Your task to perform on an android device: Turn off the flashlight Image 0: 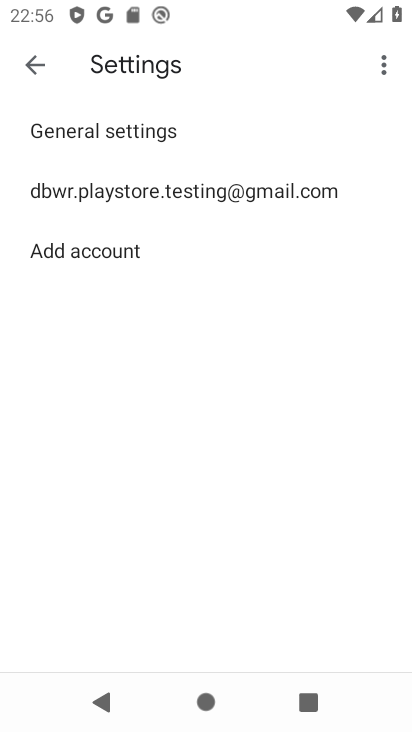
Step 0: press home button
Your task to perform on an android device: Turn off the flashlight Image 1: 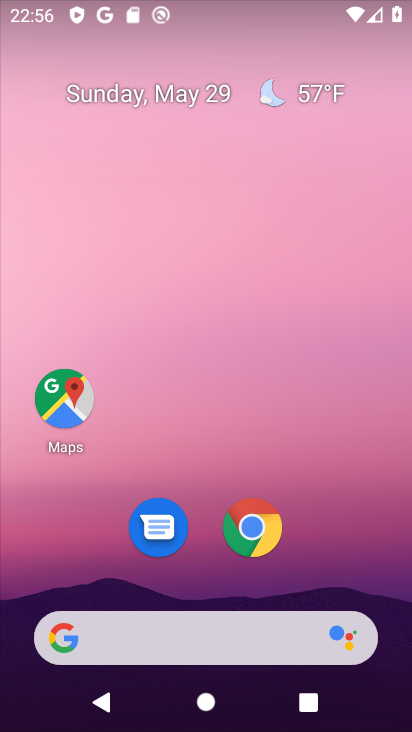
Step 1: drag from (331, 578) to (228, 137)
Your task to perform on an android device: Turn off the flashlight Image 2: 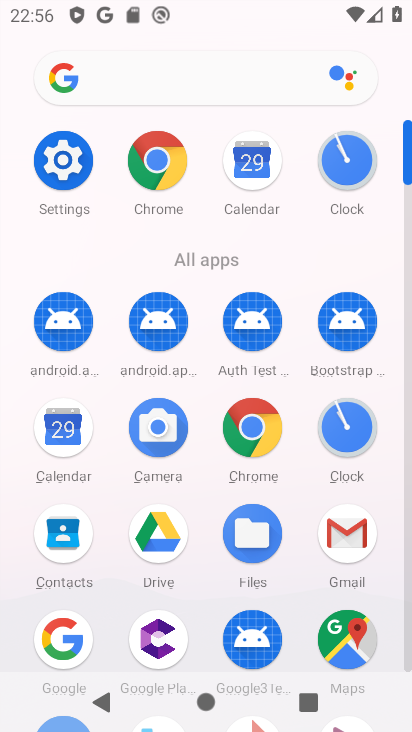
Step 2: click (62, 161)
Your task to perform on an android device: Turn off the flashlight Image 3: 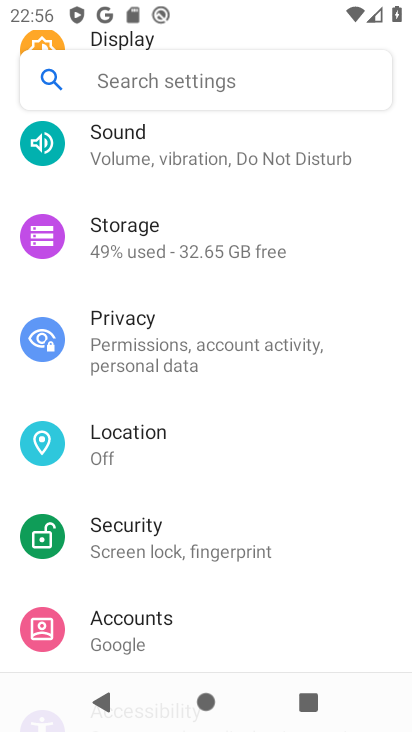
Step 3: drag from (199, 476) to (239, 390)
Your task to perform on an android device: Turn off the flashlight Image 4: 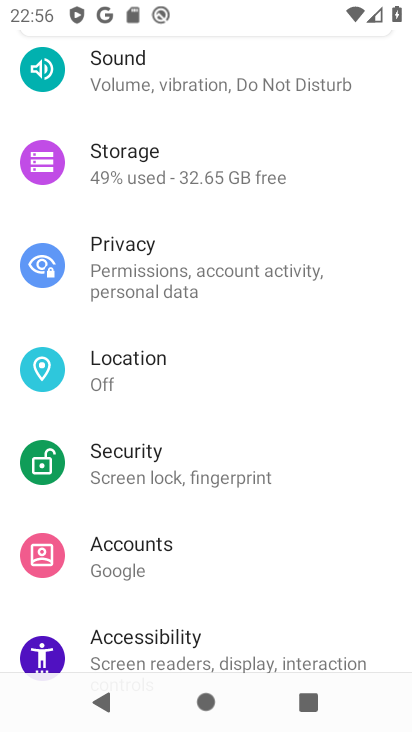
Step 4: drag from (179, 526) to (207, 431)
Your task to perform on an android device: Turn off the flashlight Image 5: 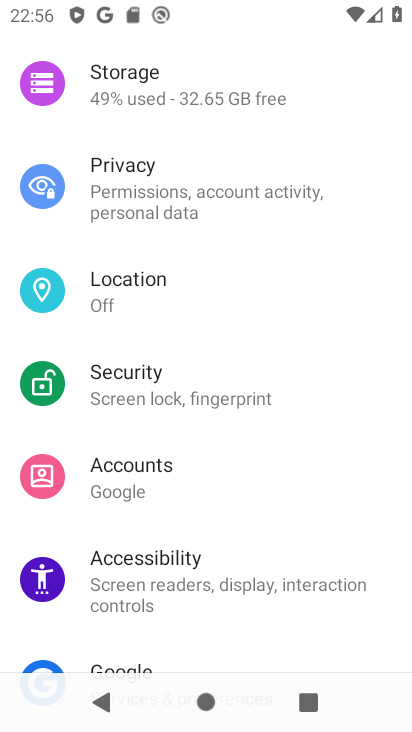
Step 5: drag from (213, 516) to (229, 405)
Your task to perform on an android device: Turn off the flashlight Image 6: 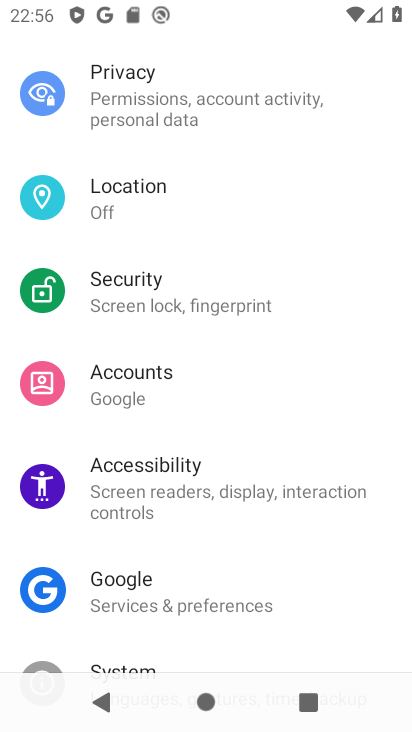
Step 6: drag from (219, 554) to (288, 429)
Your task to perform on an android device: Turn off the flashlight Image 7: 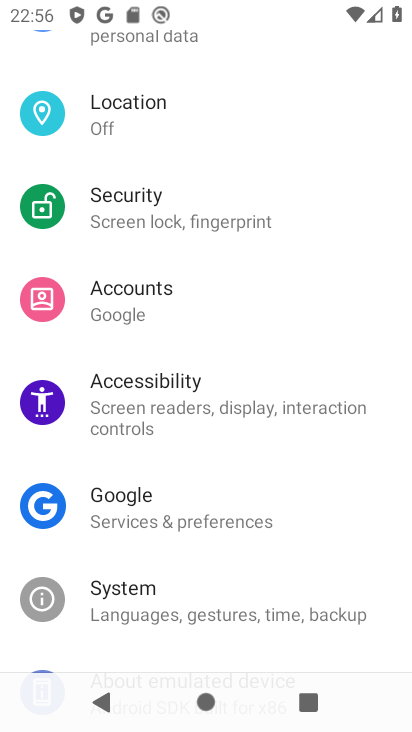
Step 7: drag from (265, 613) to (308, 498)
Your task to perform on an android device: Turn off the flashlight Image 8: 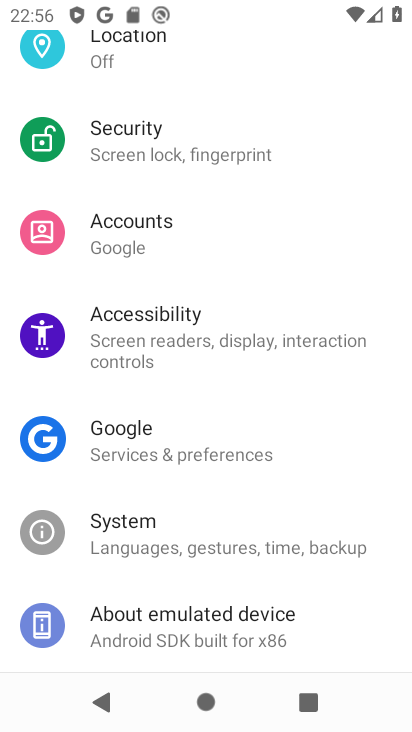
Step 8: click (308, 495)
Your task to perform on an android device: Turn off the flashlight Image 9: 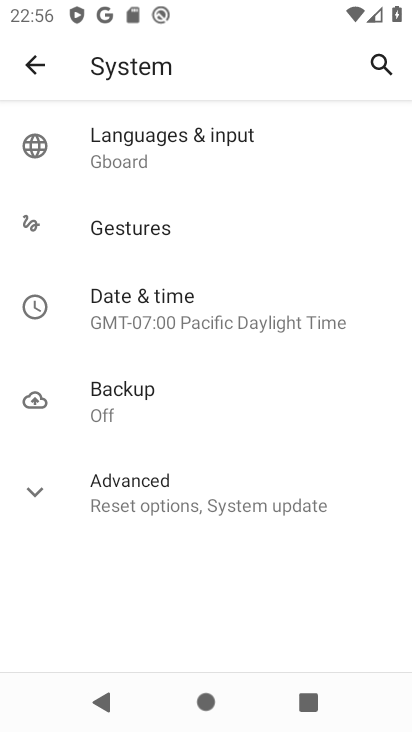
Step 9: click (208, 517)
Your task to perform on an android device: Turn off the flashlight Image 10: 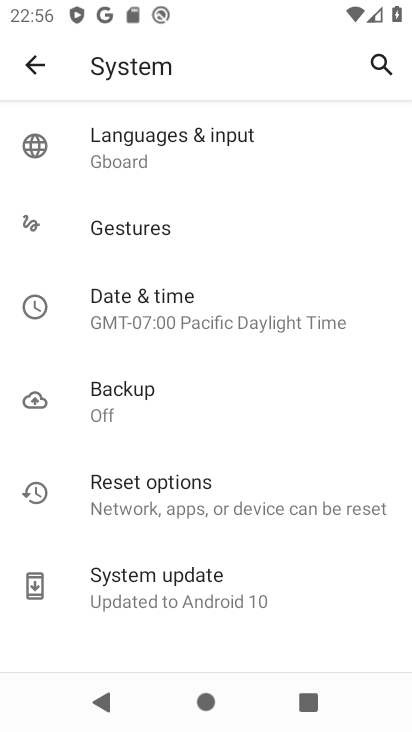
Step 10: drag from (215, 564) to (217, 480)
Your task to perform on an android device: Turn off the flashlight Image 11: 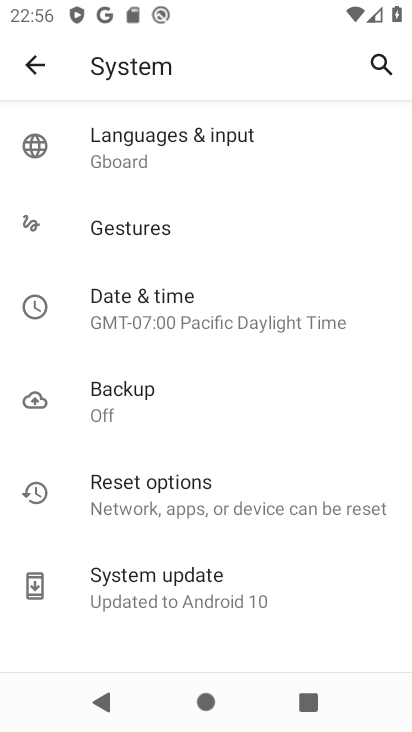
Step 11: click (34, 72)
Your task to perform on an android device: Turn off the flashlight Image 12: 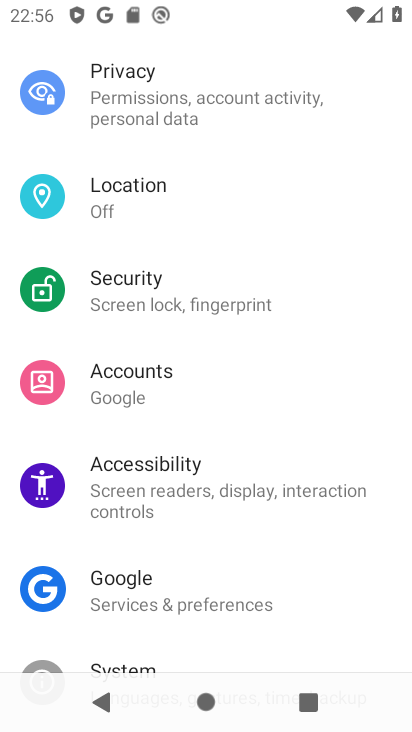
Step 12: click (186, 515)
Your task to perform on an android device: Turn off the flashlight Image 13: 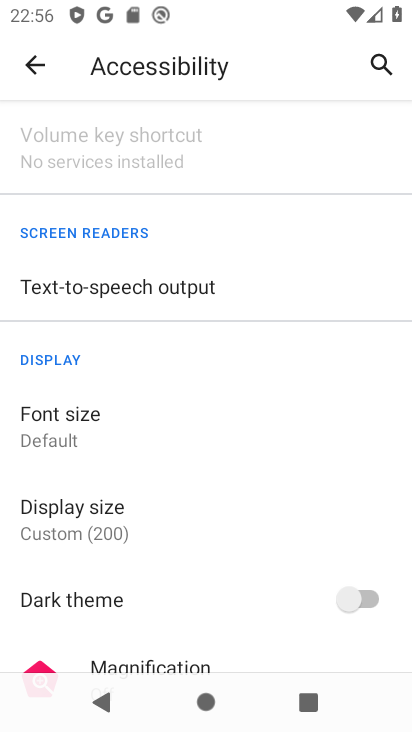
Step 13: drag from (197, 457) to (223, 315)
Your task to perform on an android device: Turn off the flashlight Image 14: 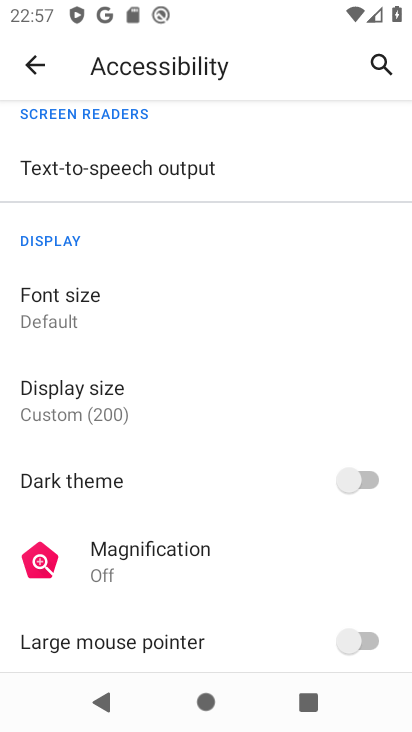
Step 14: click (118, 428)
Your task to perform on an android device: Turn off the flashlight Image 15: 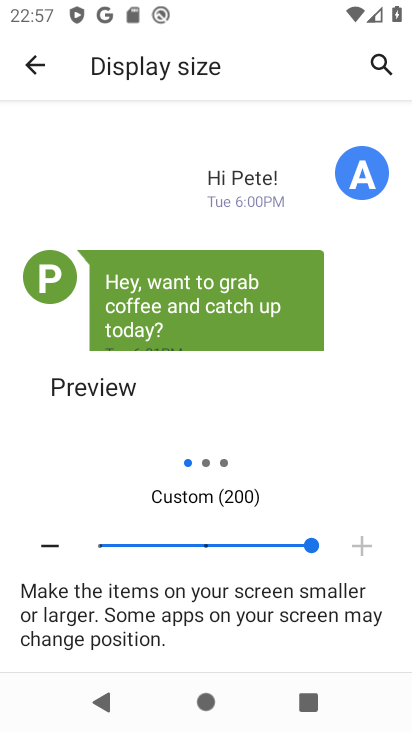
Step 15: click (40, 70)
Your task to perform on an android device: Turn off the flashlight Image 16: 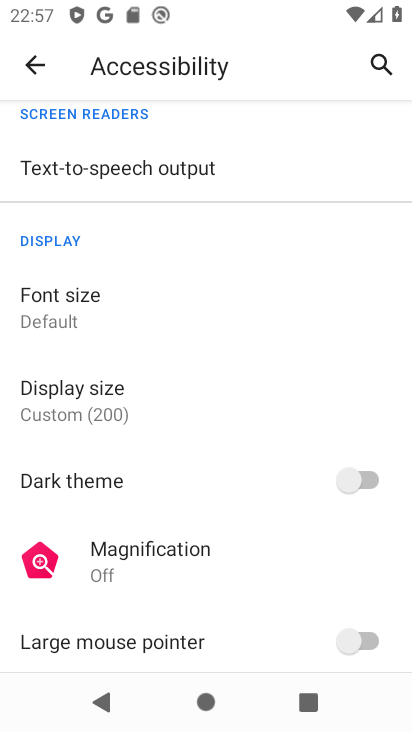
Step 16: task complete